Your task to perform on an android device: move an email to a new category in the gmail app Image 0: 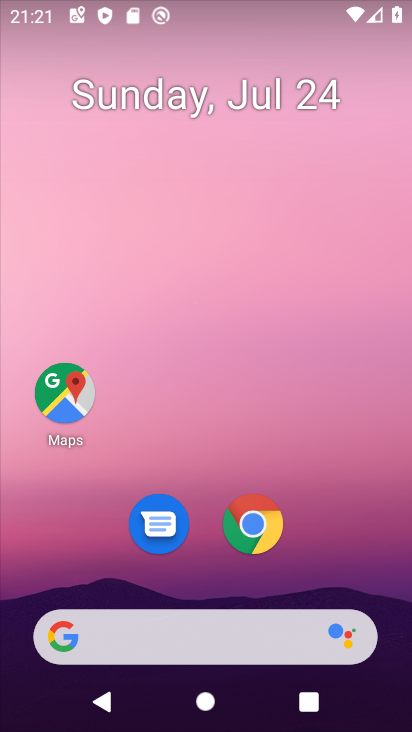
Step 0: press home button
Your task to perform on an android device: move an email to a new category in the gmail app Image 1: 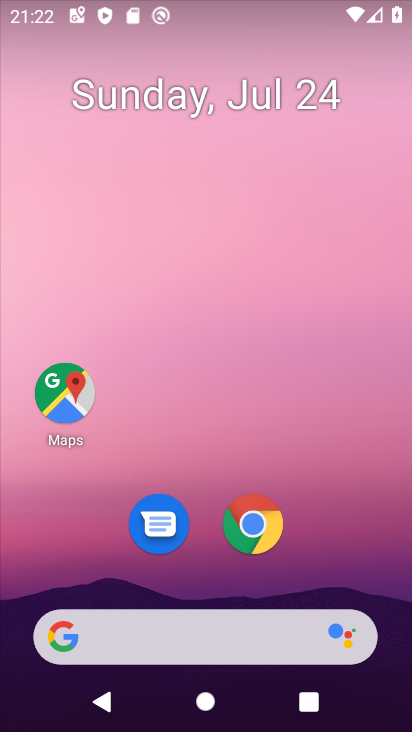
Step 1: drag from (182, 636) to (276, 108)
Your task to perform on an android device: move an email to a new category in the gmail app Image 2: 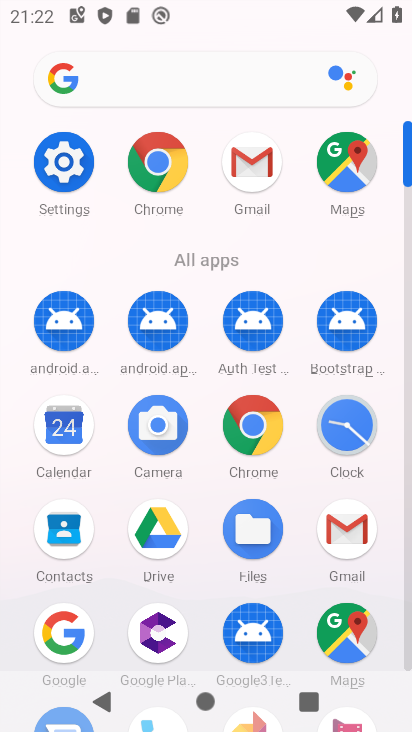
Step 2: click (251, 171)
Your task to perform on an android device: move an email to a new category in the gmail app Image 3: 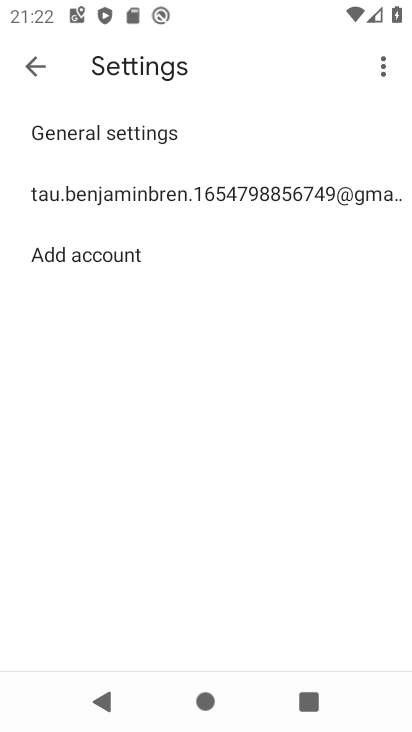
Step 3: click (40, 63)
Your task to perform on an android device: move an email to a new category in the gmail app Image 4: 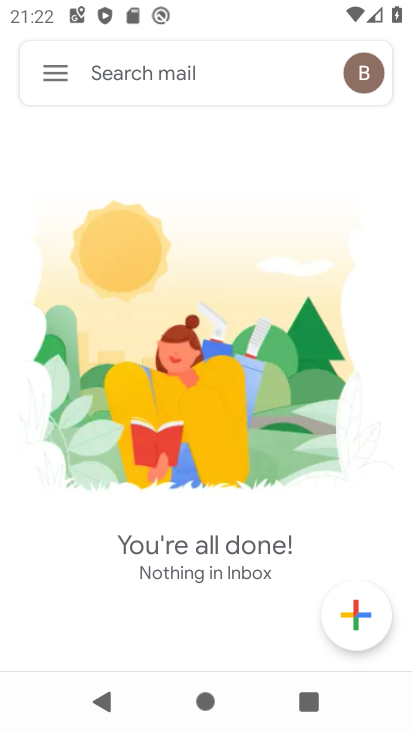
Step 4: task complete